Your task to perform on an android device: add a contact Image 0: 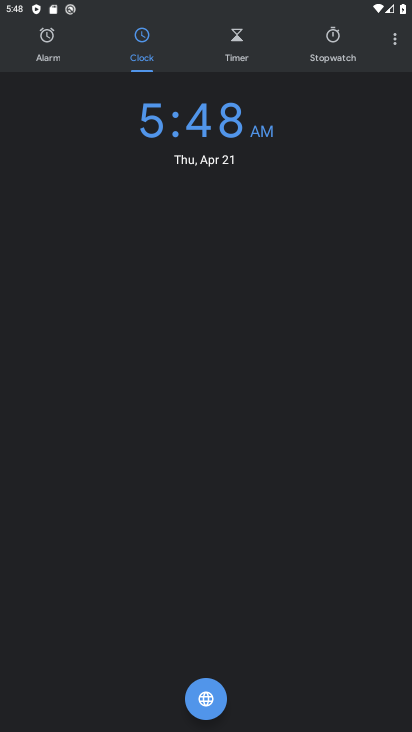
Step 0: press home button
Your task to perform on an android device: add a contact Image 1: 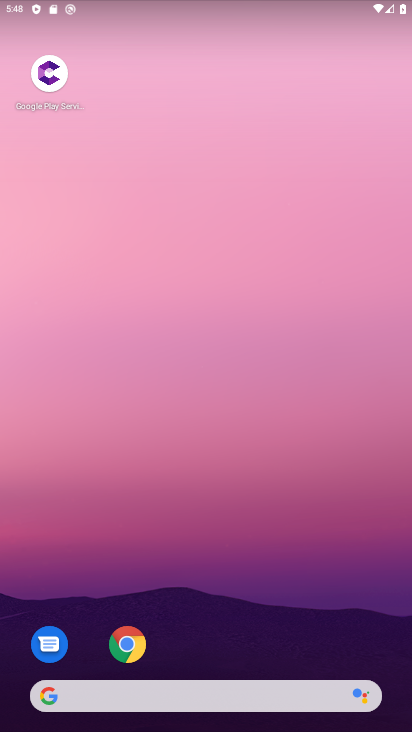
Step 1: drag from (318, 616) to (150, 50)
Your task to perform on an android device: add a contact Image 2: 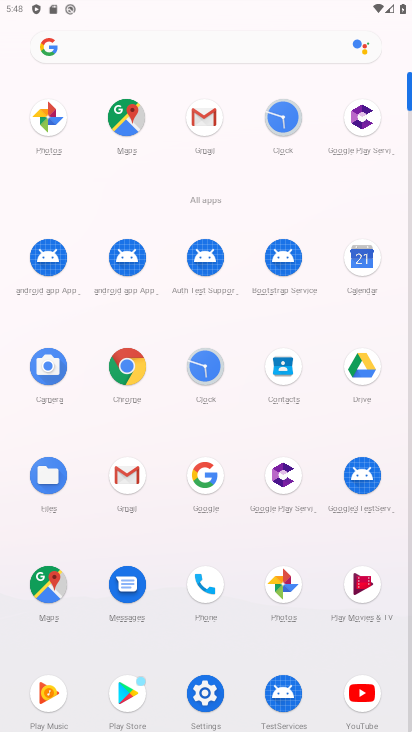
Step 2: click (278, 371)
Your task to perform on an android device: add a contact Image 3: 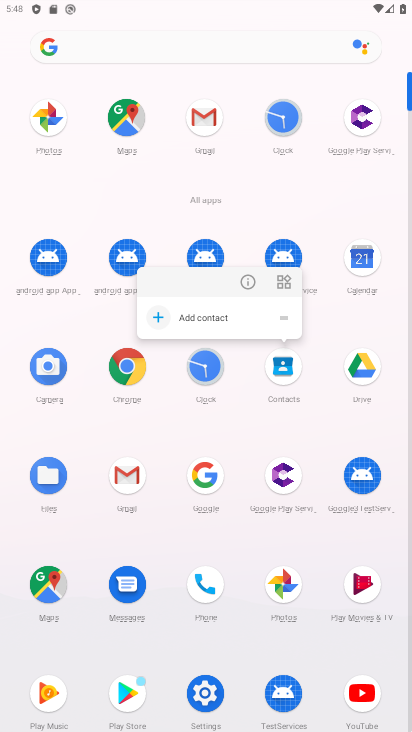
Step 3: click (278, 362)
Your task to perform on an android device: add a contact Image 4: 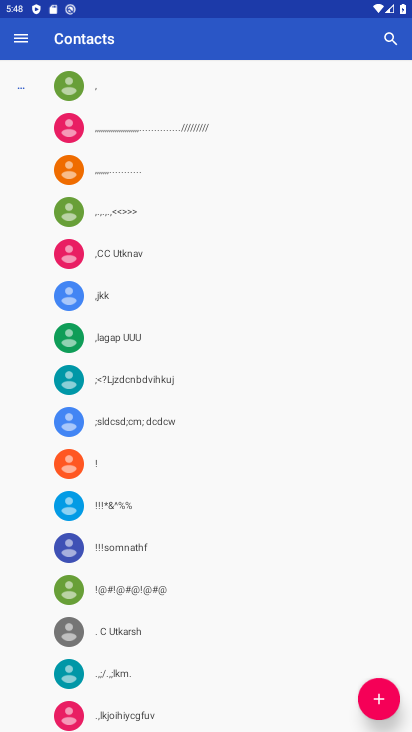
Step 4: click (385, 694)
Your task to perform on an android device: add a contact Image 5: 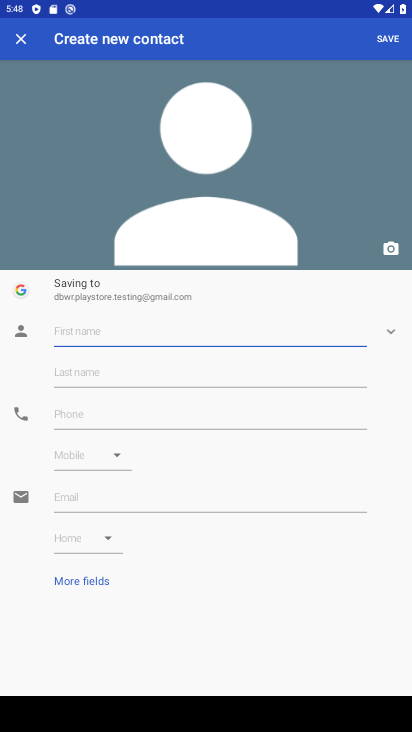
Step 5: click (268, 313)
Your task to perform on an android device: add a contact Image 6: 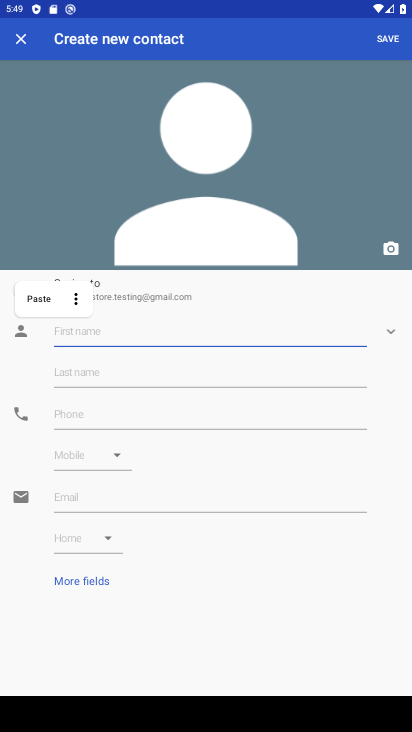
Step 6: type "fhvj"
Your task to perform on an android device: add a contact Image 7: 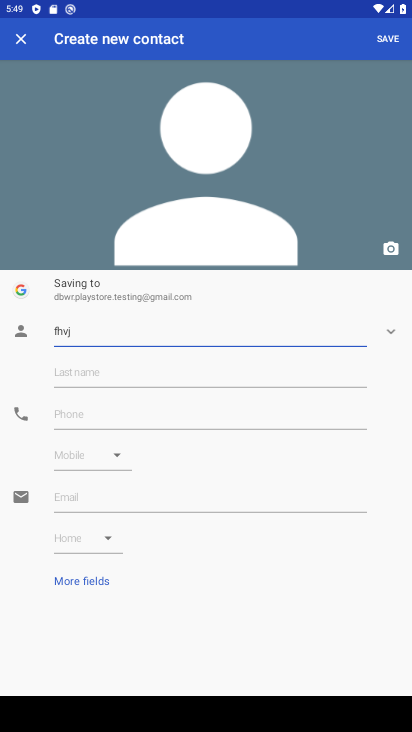
Step 7: click (58, 403)
Your task to perform on an android device: add a contact Image 8: 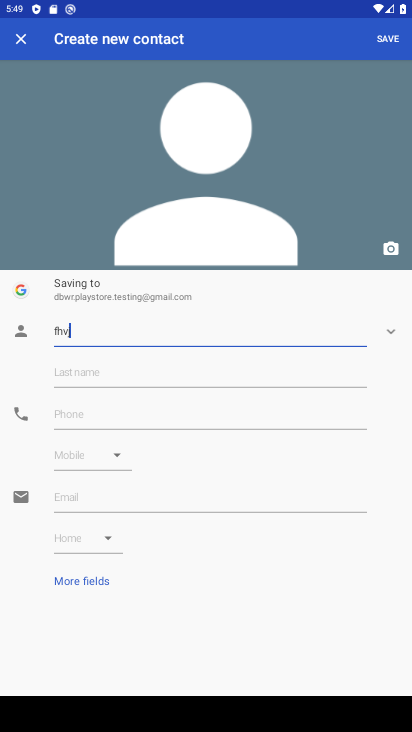
Step 8: click (58, 403)
Your task to perform on an android device: add a contact Image 9: 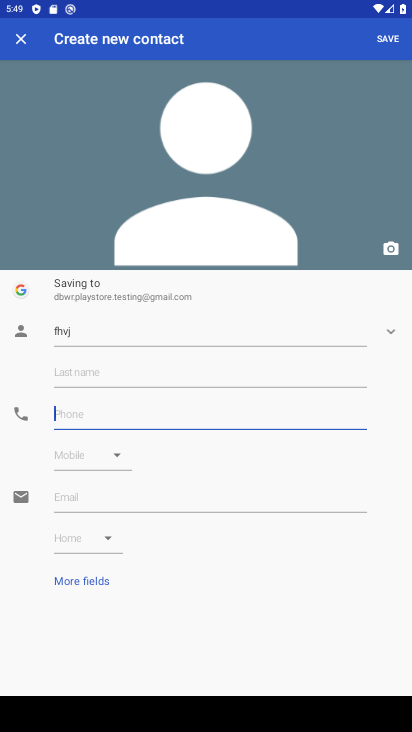
Step 9: click (58, 403)
Your task to perform on an android device: add a contact Image 10: 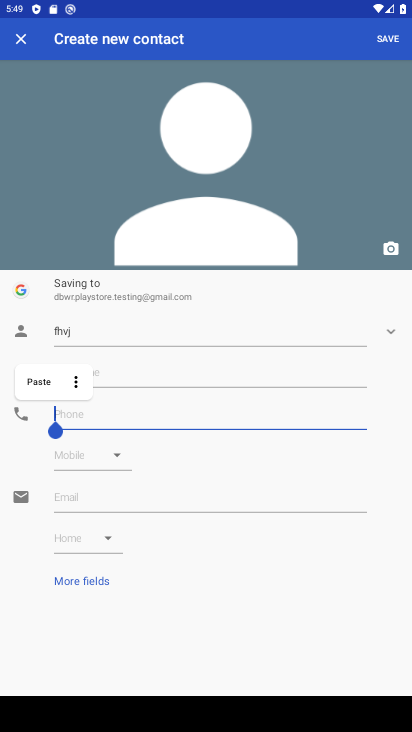
Step 10: type "4"
Your task to perform on an android device: add a contact Image 11: 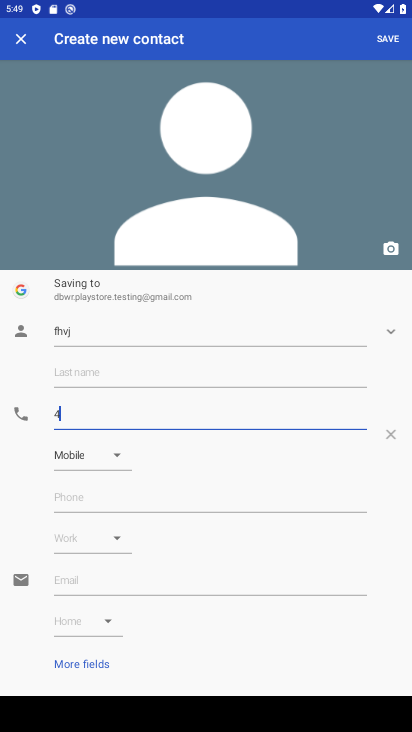
Step 11: click (390, 37)
Your task to perform on an android device: add a contact Image 12: 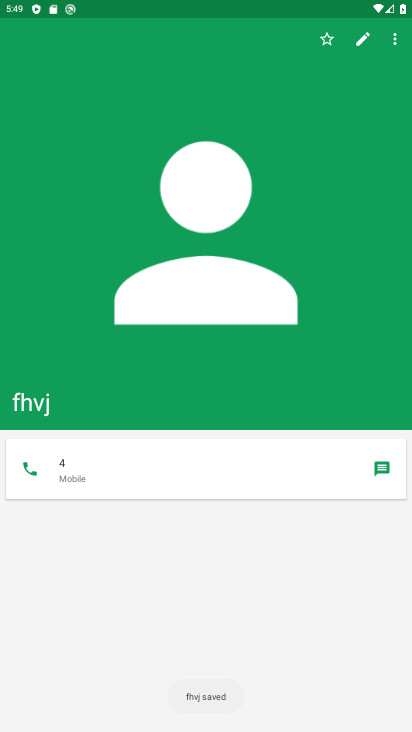
Step 12: click (393, 38)
Your task to perform on an android device: add a contact Image 13: 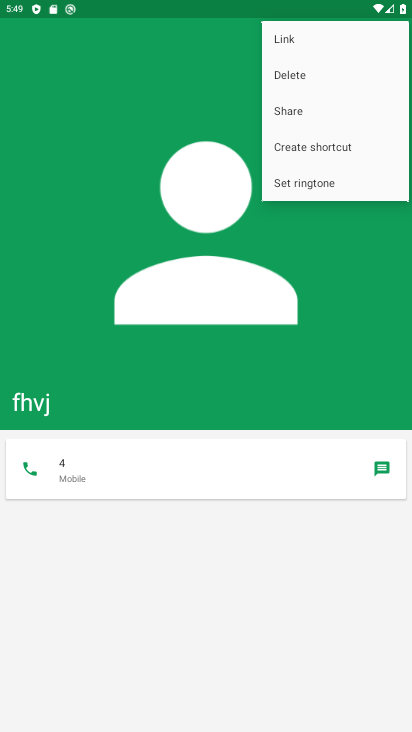
Step 13: task complete